Your task to perform on an android device: check google app version Image 0: 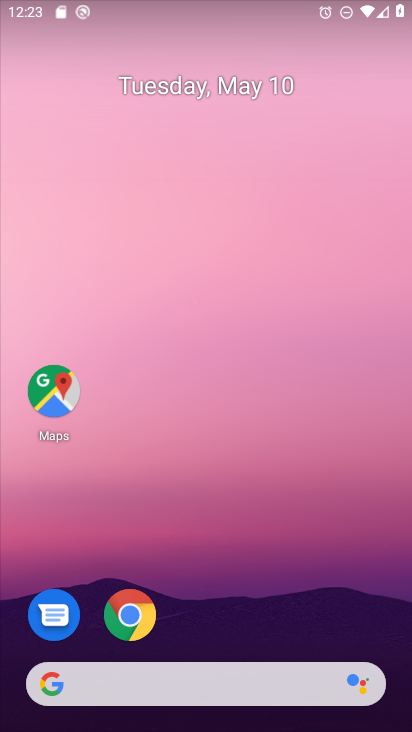
Step 0: drag from (249, 701) to (273, 362)
Your task to perform on an android device: check google app version Image 1: 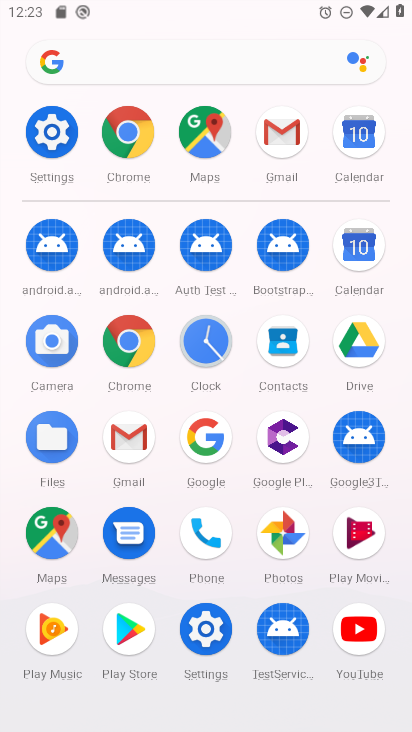
Step 1: click (139, 142)
Your task to perform on an android device: check google app version Image 2: 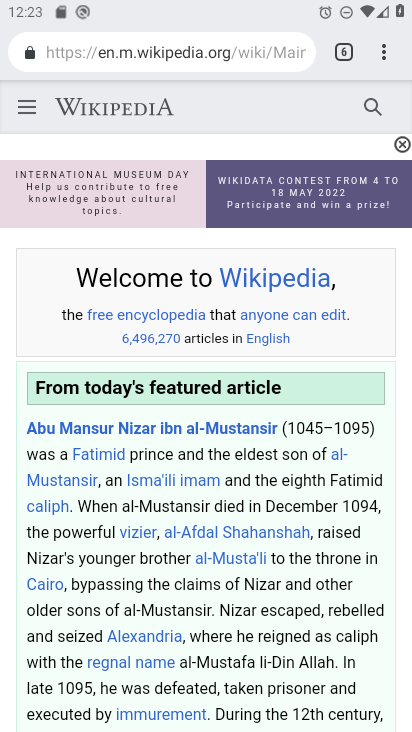
Step 2: click (380, 59)
Your task to perform on an android device: check google app version Image 3: 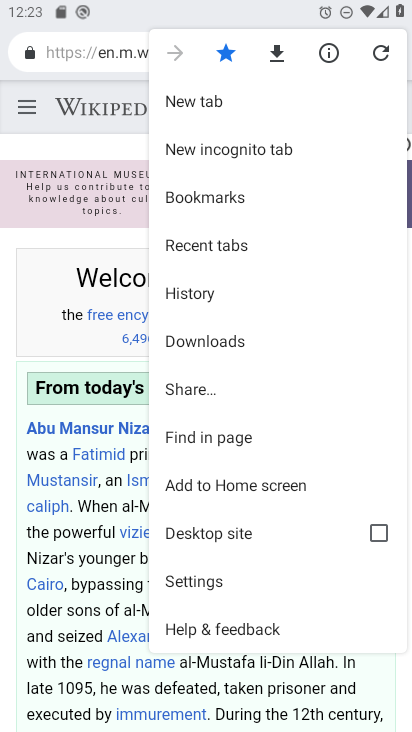
Step 3: click (201, 582)
Your task to perform on an android device: check google app version Image 4: 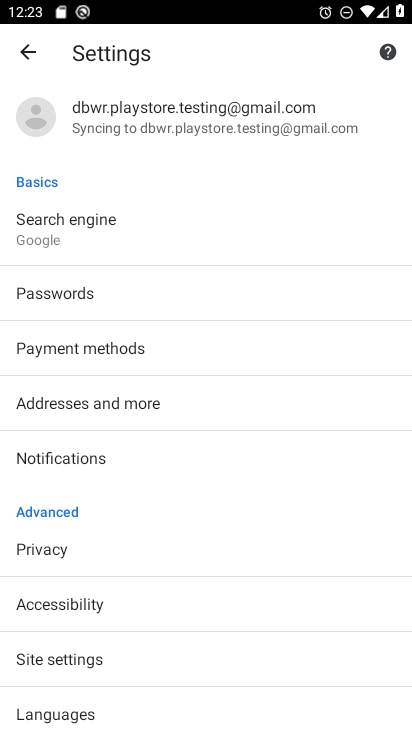
Step 4: drag from (198, 616) to (301, 320)
Your task to perform on an android device: check google app version Image 5: 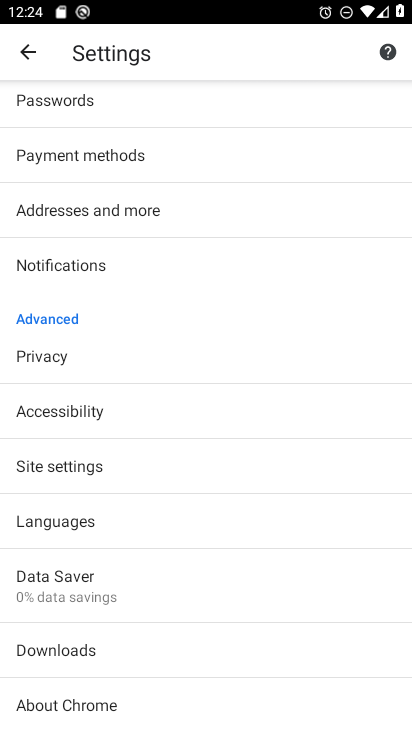
Step 5: click (79, 699)
Your task to perform on an android device: check google app version Image 6: 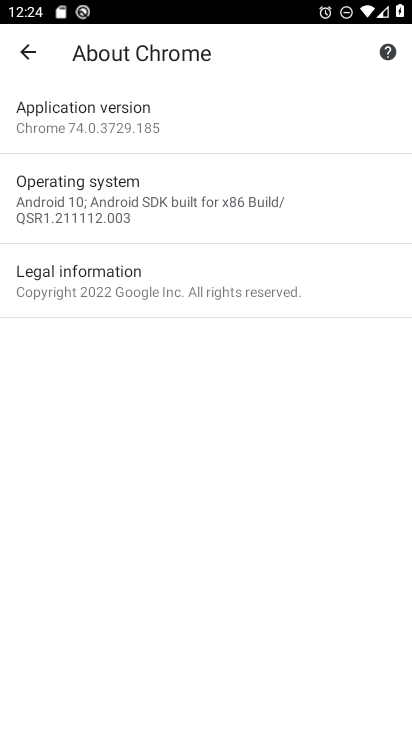
Step 6: click (166, 126)
Your task to perform on an android device: check google app version Image 7: 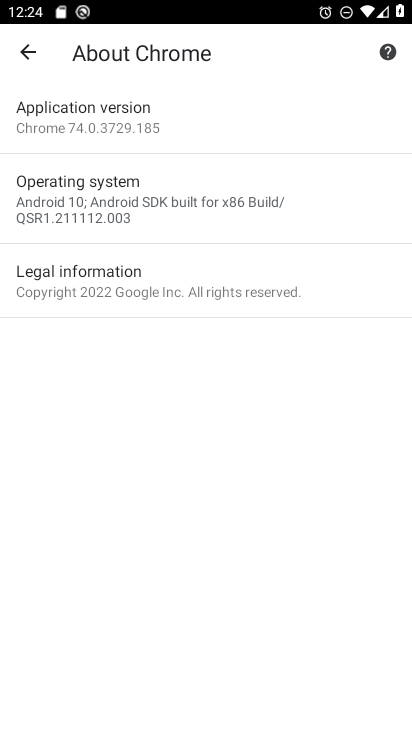
Step 7: task complete